Your task to perform on an android device: Open CNN.com Image 0: 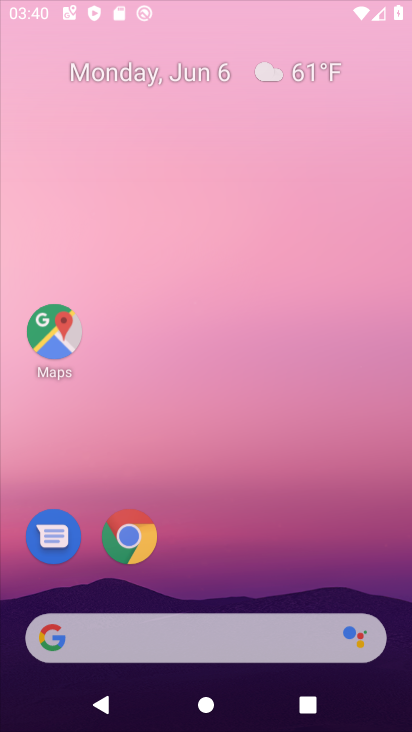
Step 0: press home button
Your task to perform on an android device: Open CNN.com Image 1: 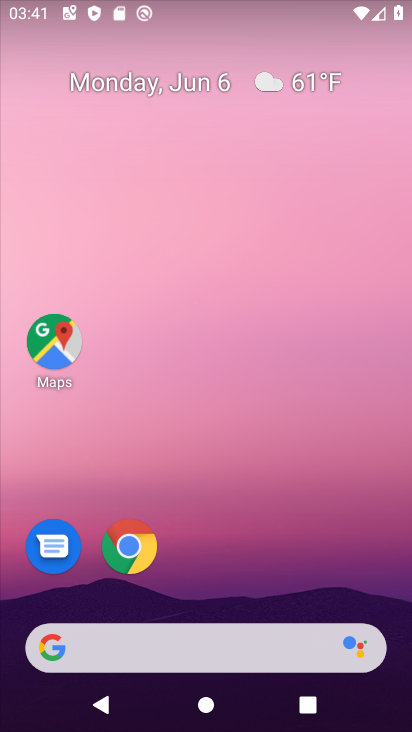
Step 1: click (50, 656)
Your task to perform on an android device: Open CNN.com Image 2: 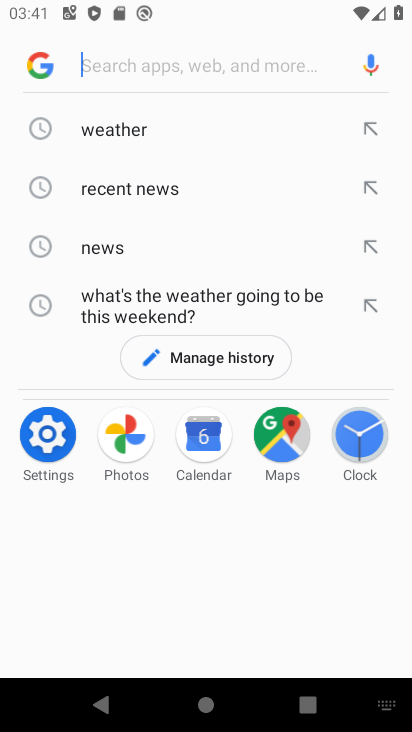
Step 2: type " CNN.com"
Your task to perform on an android device: Open CNN.com Image 3: 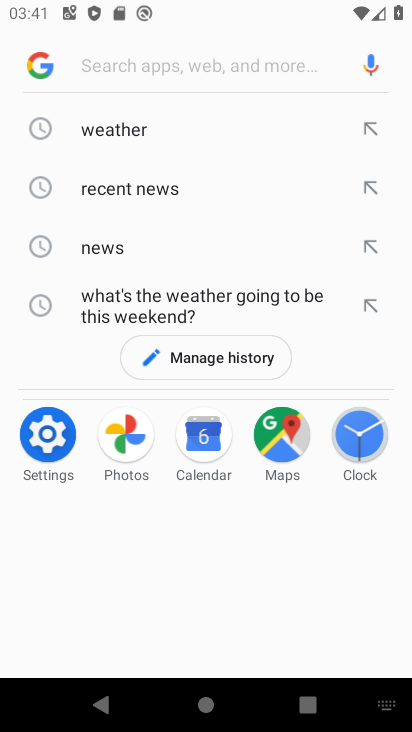
Step 3: click (171, 55)
Your task to perform on an android device: Open CNN.com Image 4: 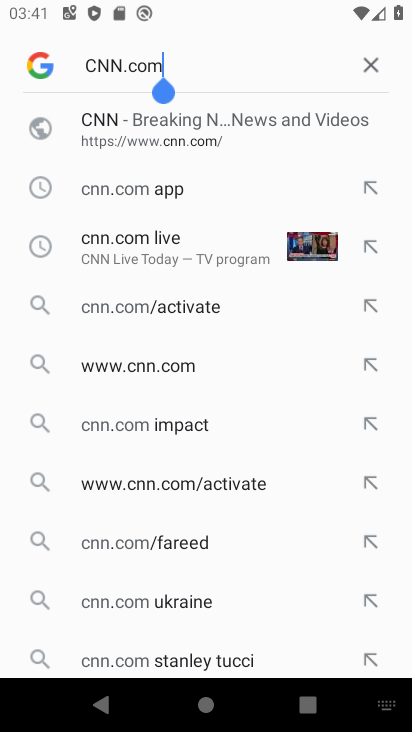
Step 4: click (91, 130)
Your task to perform on an android device: Open CNN.com Image 5: 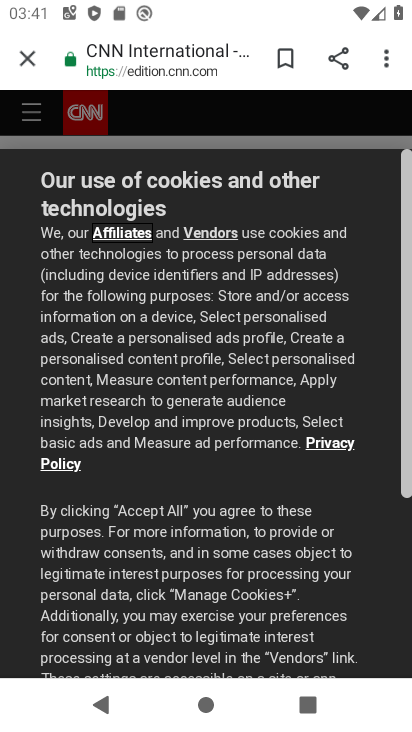
Step 5: task complete